Your task to perform on an android device: Go to eBay Image 0: 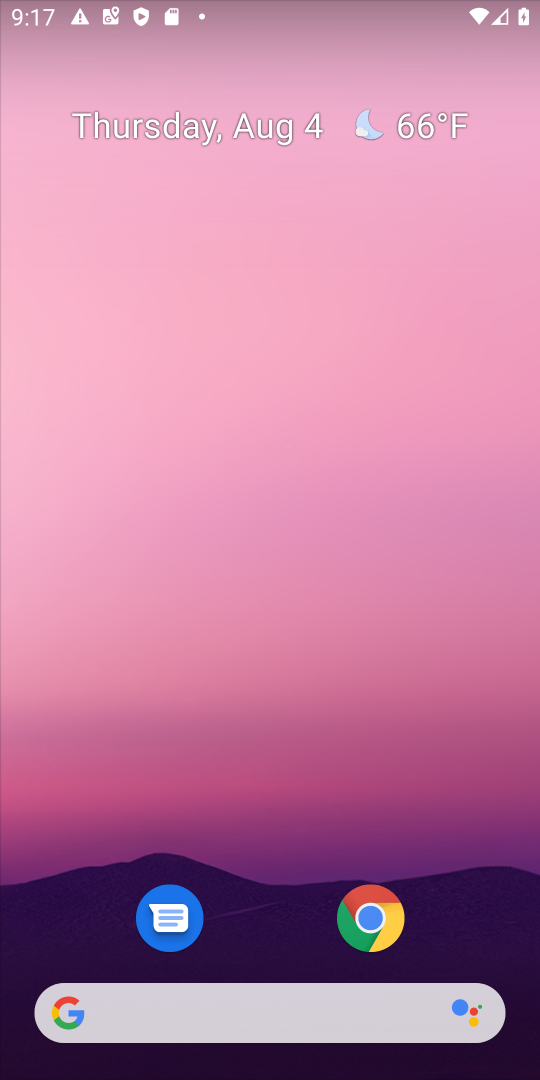
Step 0: press home button
Your task to perform on an android device: Go to eBay Image 1: 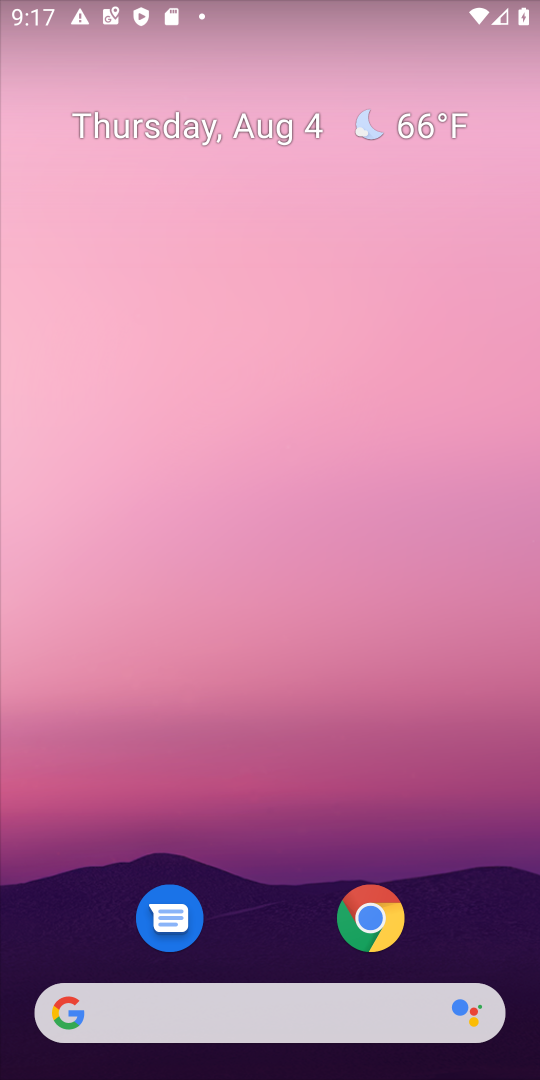
Step 1: press home button
Your task to perform on an android device: Go to eBay Image 2: 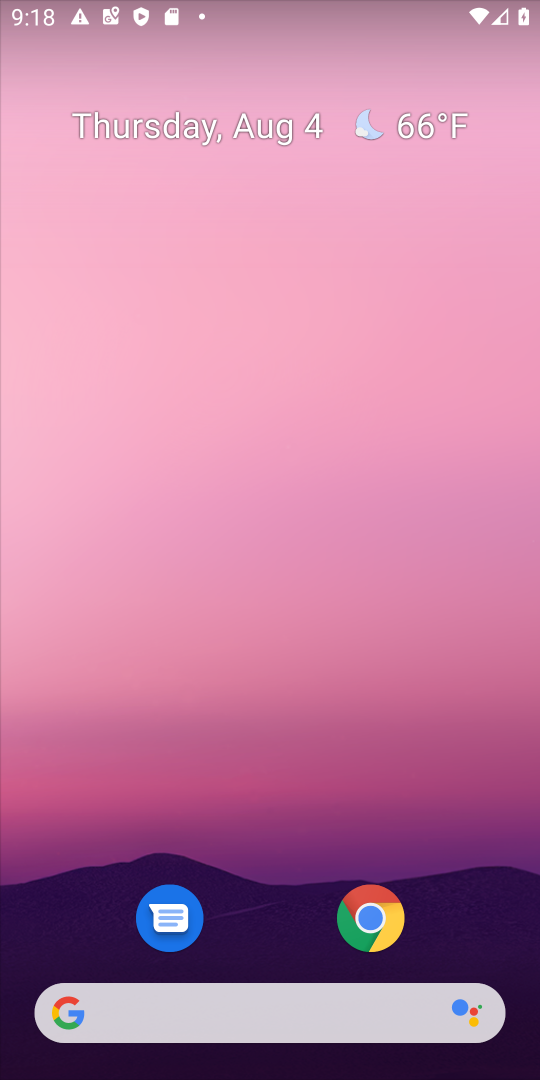
Step 2: drag from (434, 952) to (404, 0)
Your task to perform on an android device: Go to eBay Image 3: 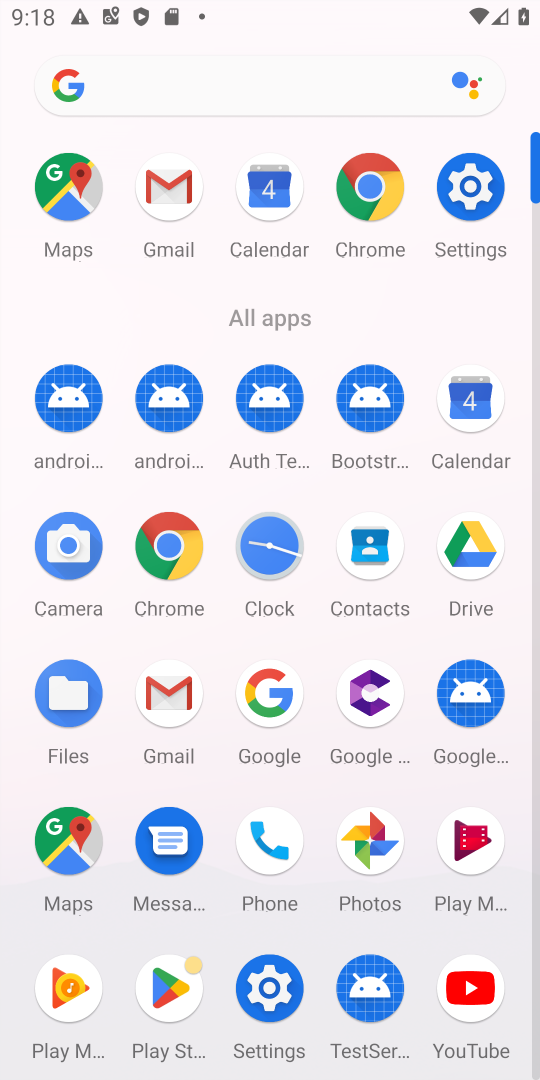
Step 3: click (166, 539)
Your task to perform on an android device: Go to eBay Image 4: 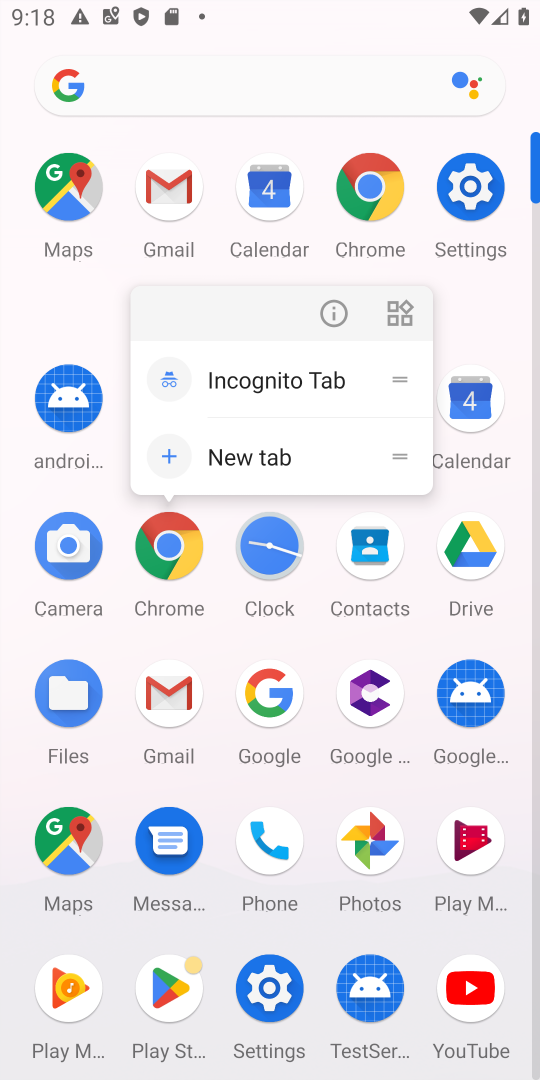
Step 4: click (377, 176)
Your task to perform on an android device: Go to eBay Image 5: 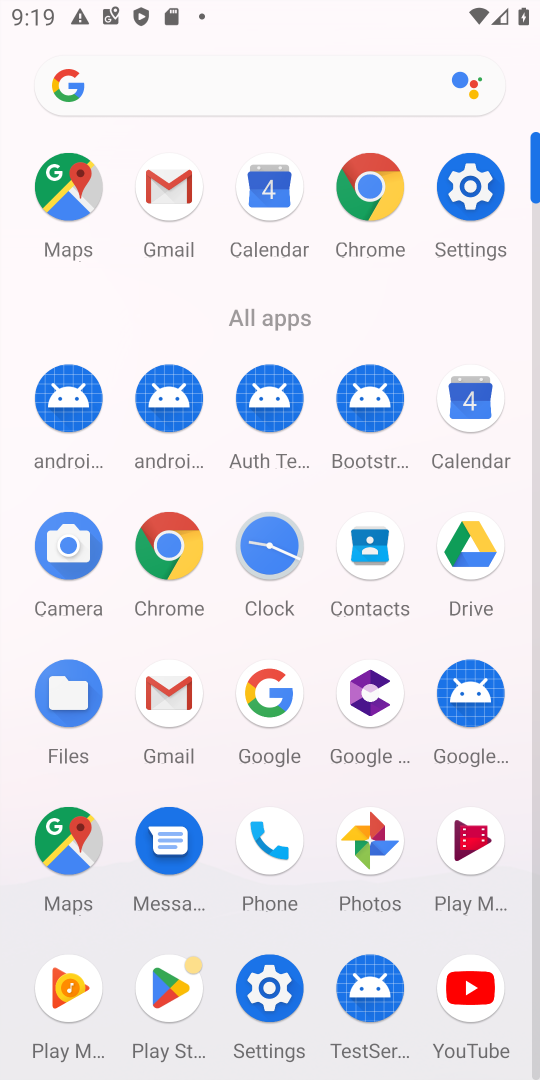
Step 5: click (373, 184)
Your task to perform on an android device: Go to eBay Image 6: 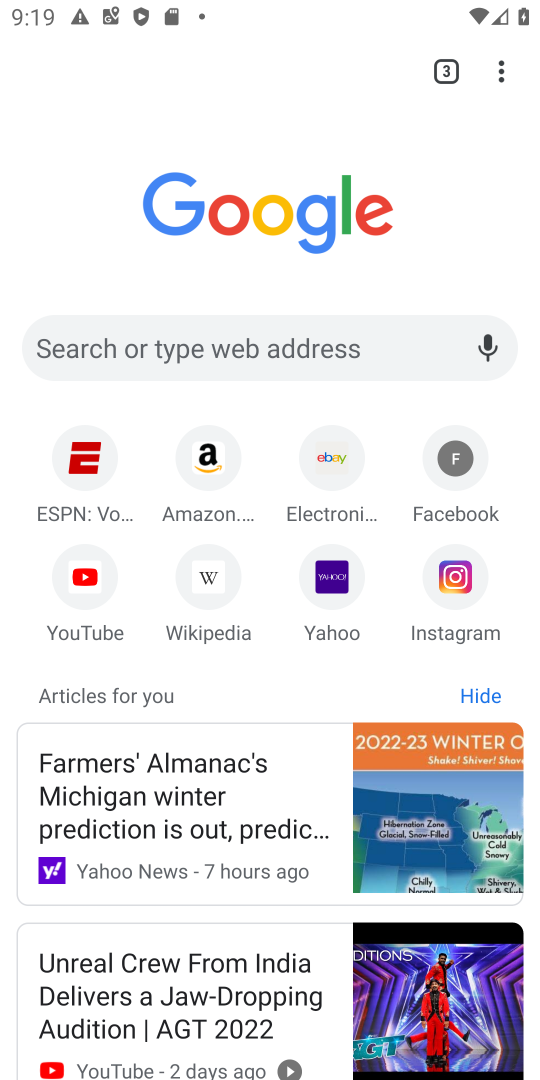
Step 6: click (327, 455)
Your task to perform on an android device: Go to eBay Image 7: 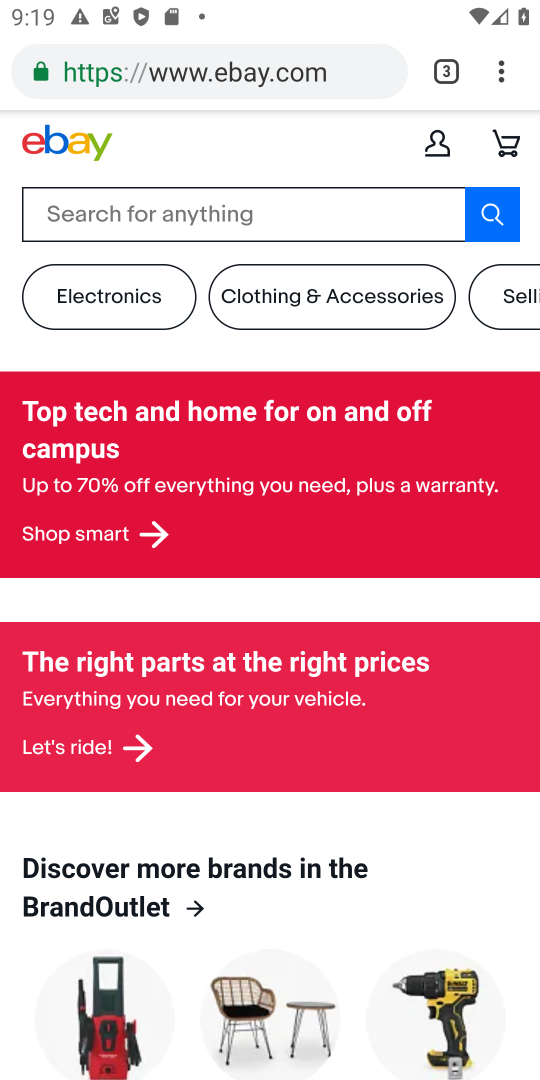
Step 7: task complete